Your task to perform on an android device: empty trash in the gmail app Image 0: 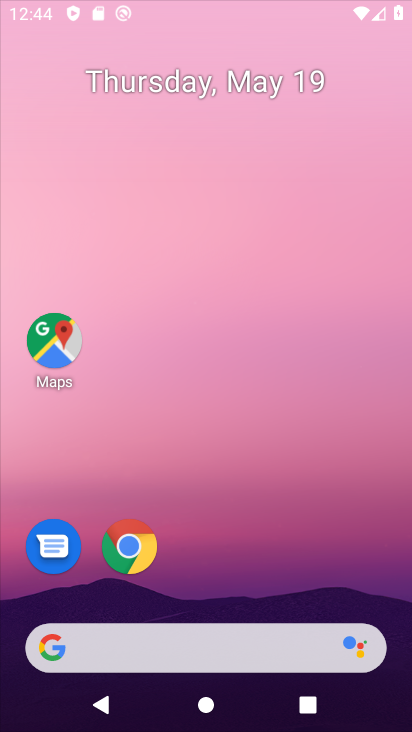
Step 0: drag from (209, 598) to (238, 71)
Your task to perform on an android device: empty trash in the gmail app Image 1: 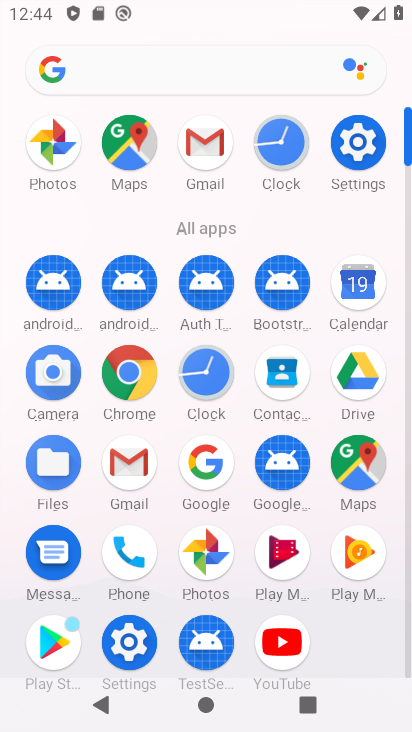
Step 1: click (123, 460)
Your task to perform on an android device: empty trash in the gmail app Image 2: 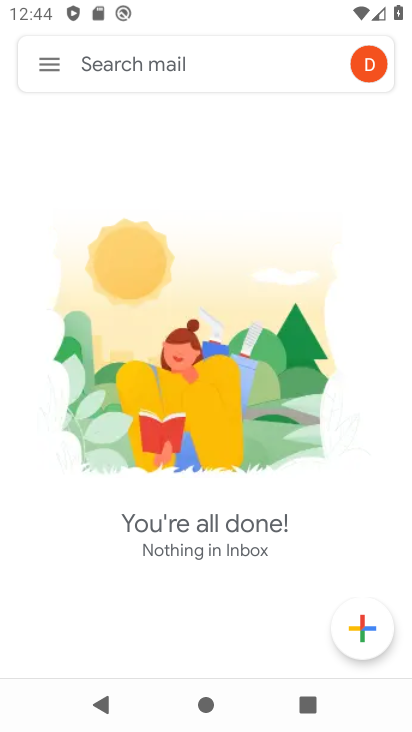
Step 2: click (49, 65)
Your task to perform on an android device: empty trash in the gmail app Image 3: 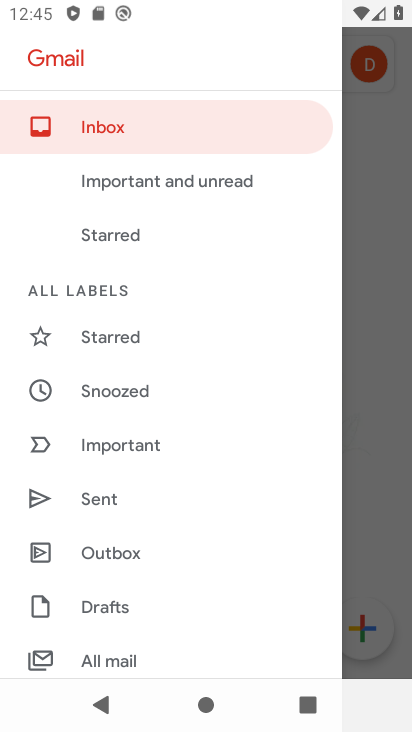
Step 3: drag from (144, 607) to (182, 204)
Your task to perform on an android device: empty trash in the gmail app Image 4: 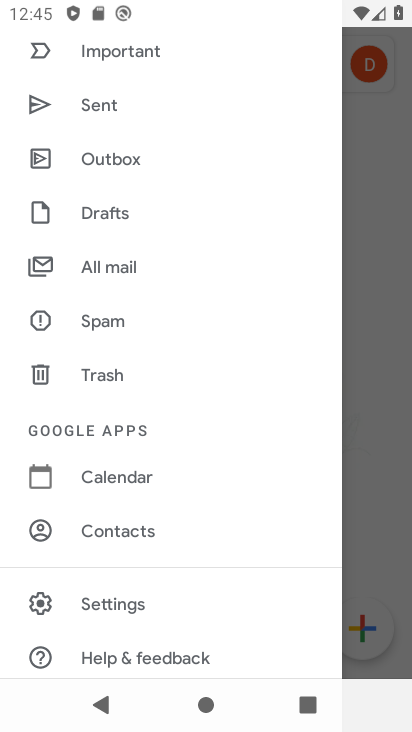
Step 4: click (138, 368)
Your task to perform on an android device: empty trash in the gmail app Image 5: 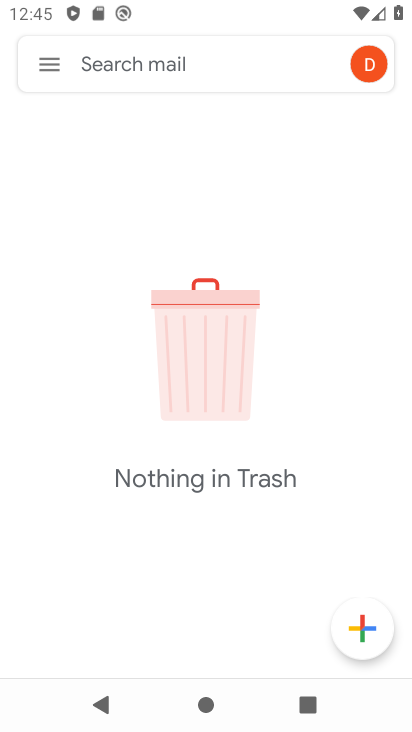
Step 5: task complete